Your task to perform on an android device: Open calendar and show me the first week of next month Image 0: 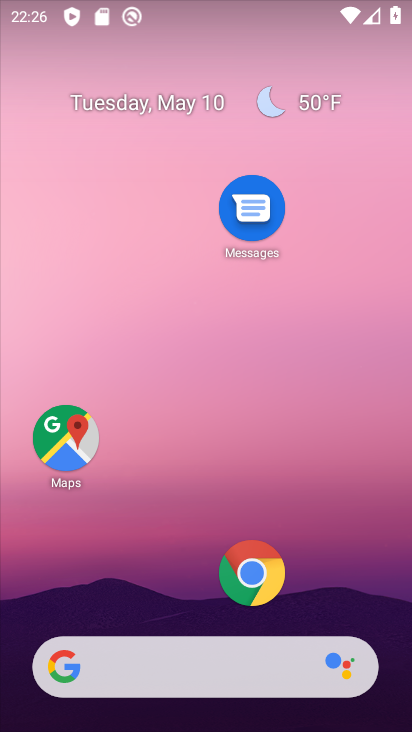
Step 0: drag from (176, 590) to (153, 105)
Your task to perform on an android device: Open calendar and show me the first week of next month Image 1: 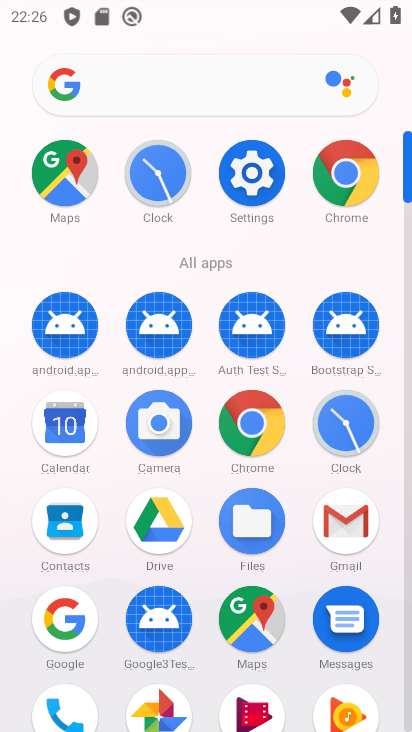
Step 1: click (68, 415)
Your task to perform on an android device: Open calendar and show me the first week of next month Image 2: 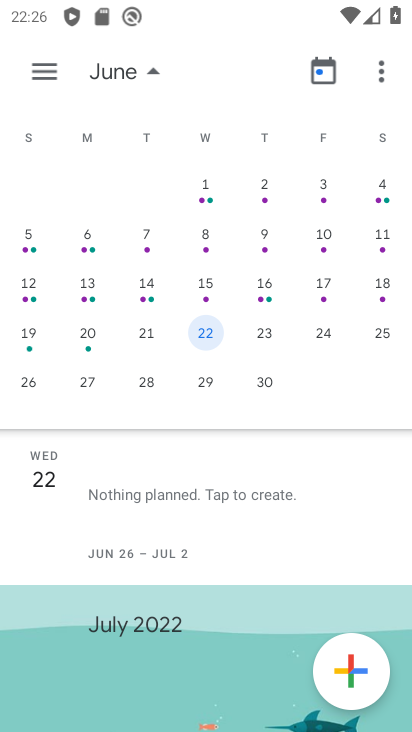
Step 2: drag from (355, 408) to (395, 404)
Your task to perform on an android device: Open calendar and show me the first week of next month Image 3: 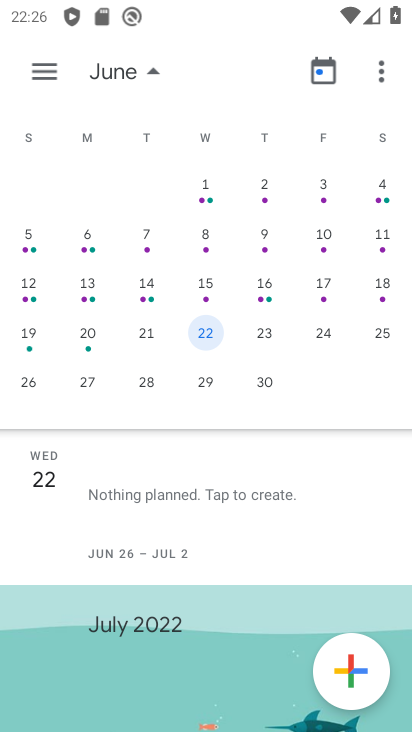
Step 3: click (323, 184)
Your task to perform on an android device: Open calendar and show me the first week of next month Image 4: 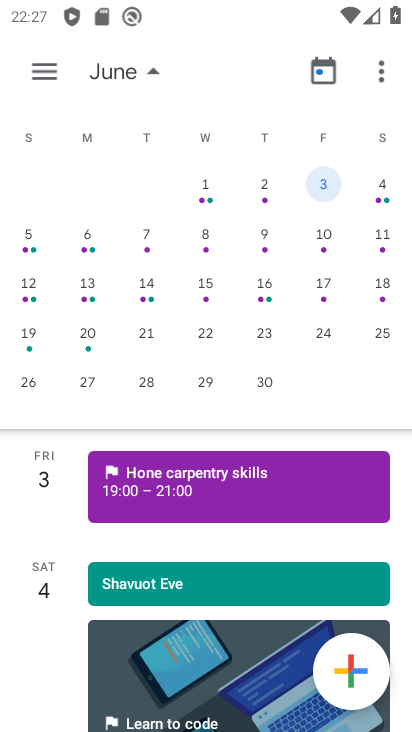
Step 4: task complete